Your task to perform on an android device: See recent photos Image 0: 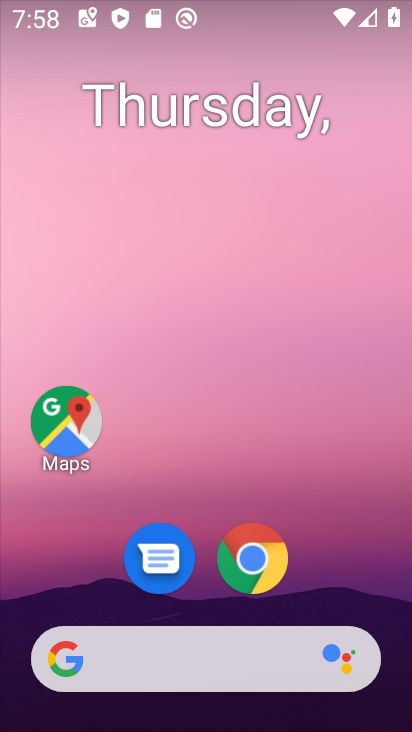
Step 0: drag from (220, 631) to (333, 24)
Your task to perform on an android device: See recent photos Image 1: 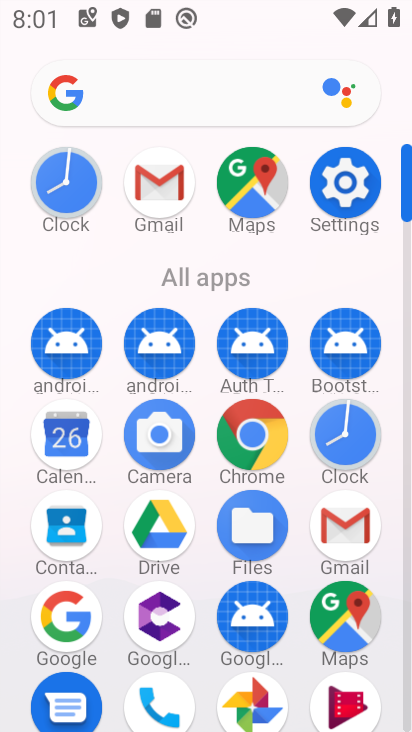
Step 1: click (260, 711)
Your task to perform on an android device: See recent photos Image 2: 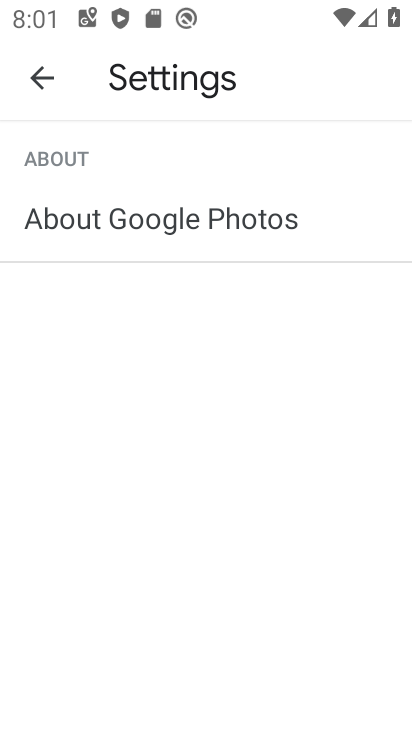
Step 2: click (44, 76)
Your task to perform on an android device: See recent photos Image 3: 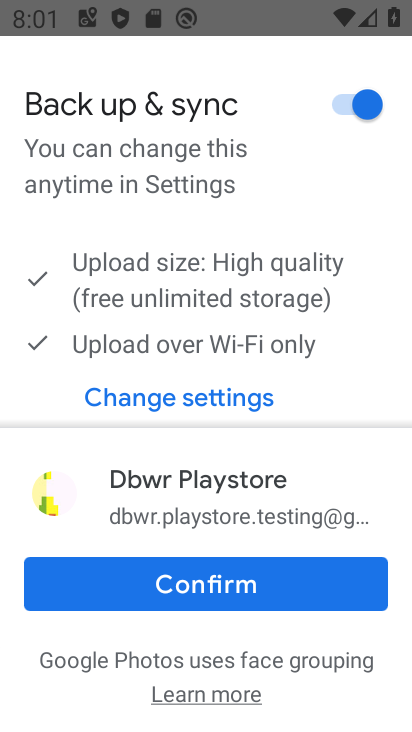
Step 3: click (170, 584)
Your task to perform on an android device: See recent photos Image 4: 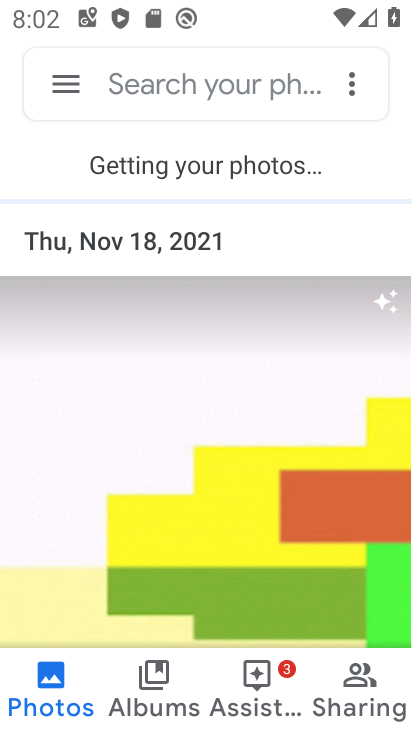
Step 4: task complete